Your task to perform on an android device: Open Google Chrome and open the bookmarks view Image 0: 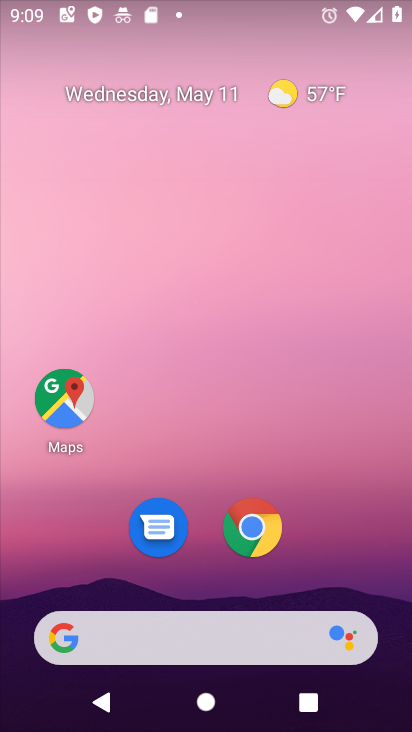
Step 0: click (255, 533)
Your task to perform on an android device: Open Google Chrome and open the bookmarks view Image 1: 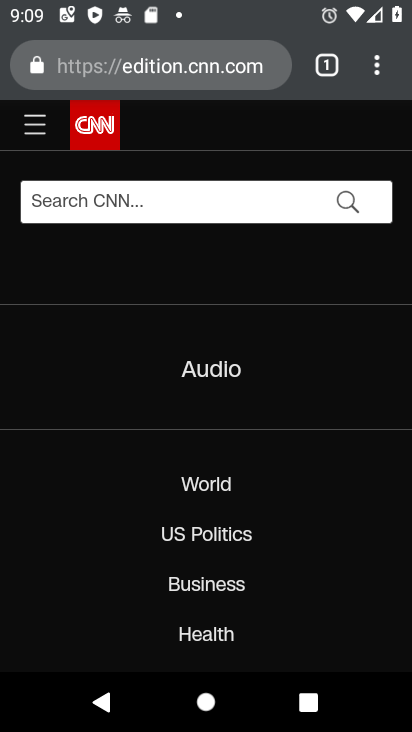
Step 1: task complete